Your task to perform on an android device: Go to Amazon Image 0: 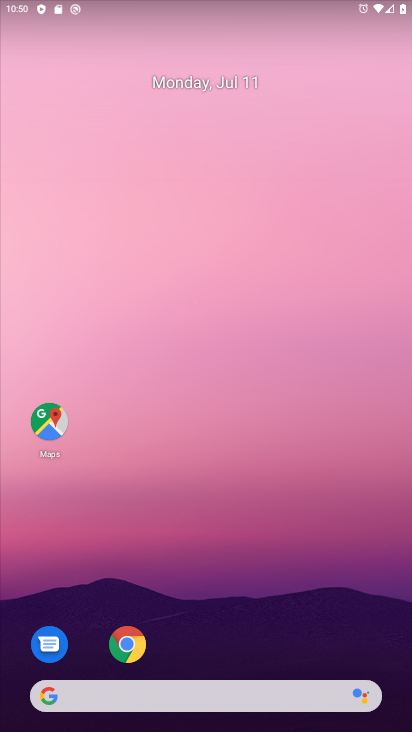
Step 0: press home button
Your task to perform on an android device: Go to Amazon Image 1: 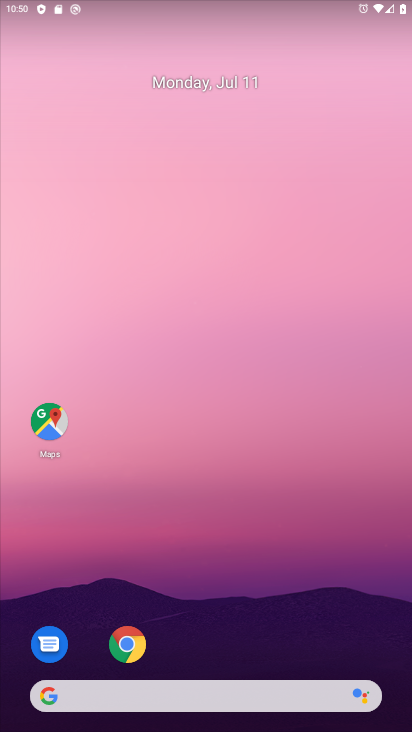
Step 1: click (118, 641)
Your task to perform on an android device: Go to Amazon Image 2: 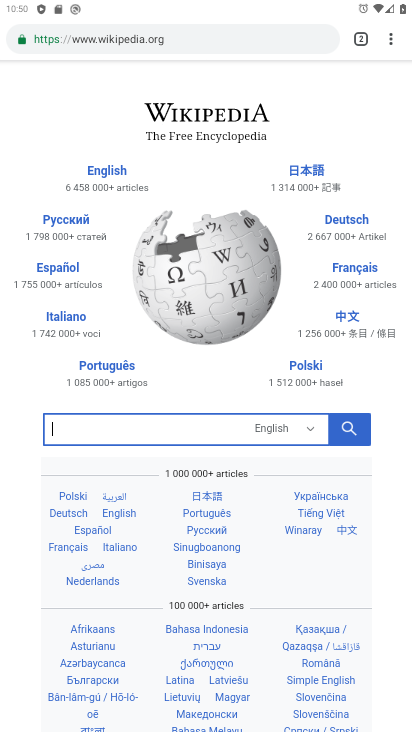
Step 2: click (225, 43)
Your task to perform on an android device: Go to Amazon Image 3: 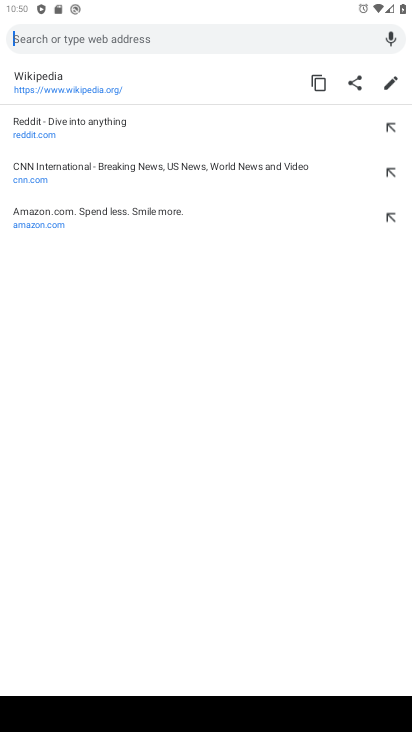
Step 3: click (62, 212)
Your task to perform on an android device: Go to Amazon Image 4: 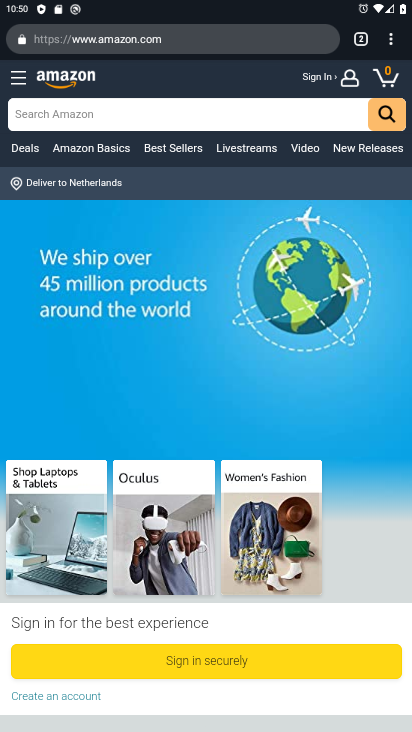
Step 4: task complete